Your task to perform on an android device: open app "Gmail" (install if not already installed), go to login, and select forgot password Image 0: 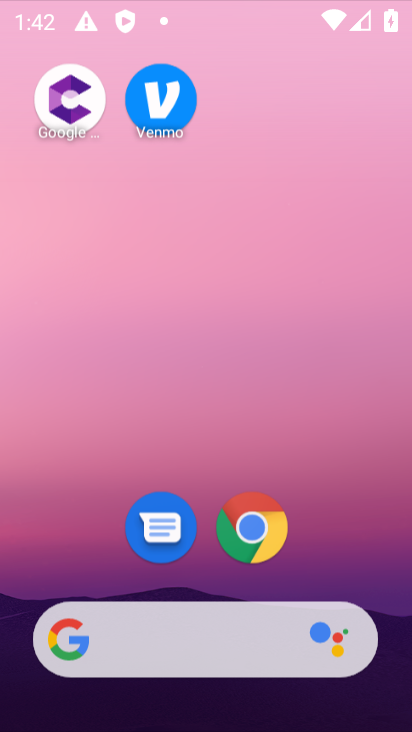
Step 0: drag from (409, 64) to (15, 52)
Your task to perform on an android device: open app "Gmail" (install if not already installed), go to login, and select forgot password Image 1: 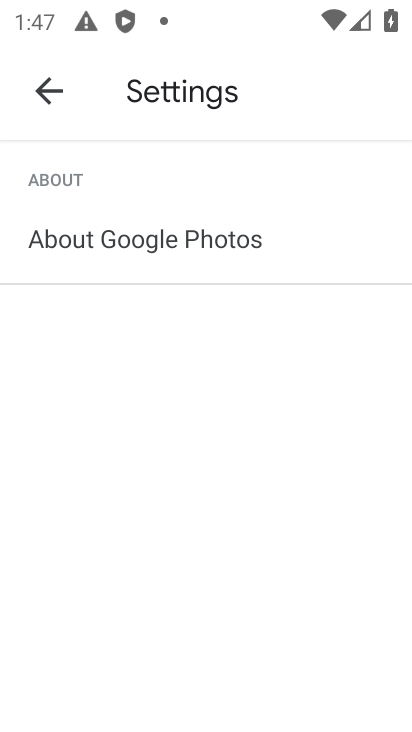
Step 1: press home button
Your task to perform on an android device: open app "Gmail" (install if not already installed), go to login, and select forgot password Image 2: 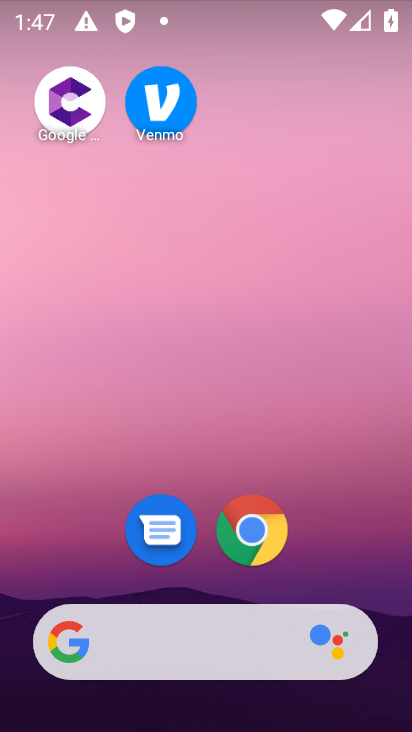
Step 2: drag from (279, 563) to (238, 0)
Your task to perform on an android device: open app "Gmail" (install if not already installed), go to login, and select forgot password Image 3: 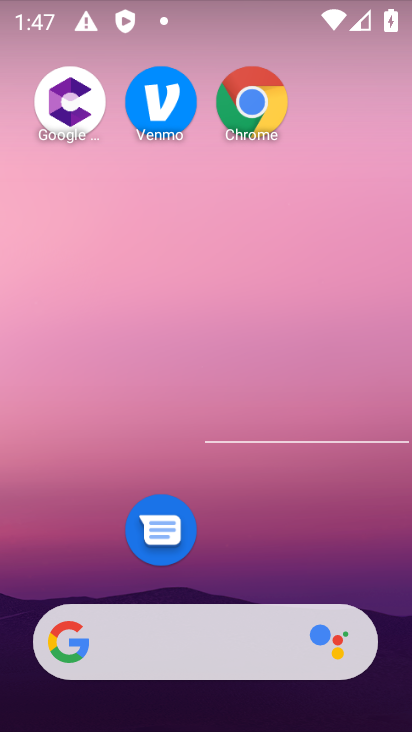
Step 3: click (377, 522)
Your task to perform on an android device: open app "Gmail" (install if not already installed), go to login, and select forgot password Image 4: 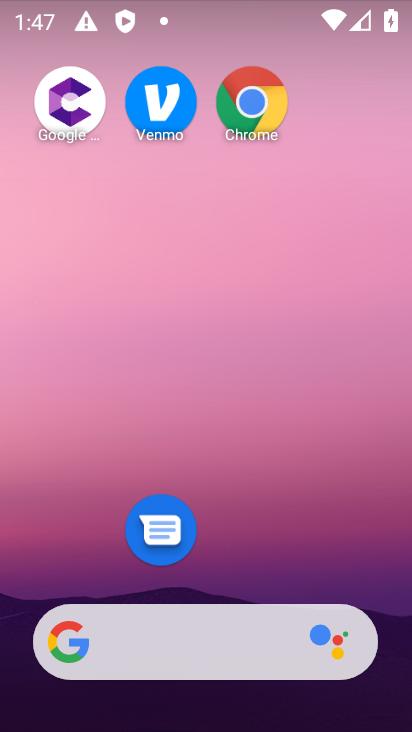
Step 4: drag from (285, 581) to (169, 13)
Your task to perform on an android device: open app "Gmail" (install if not already installed), go to login, and select forgot password Image 5: 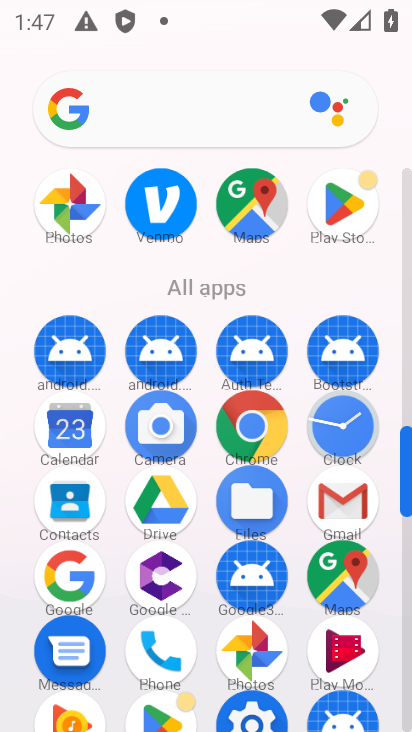
Step 5: click (367, 206)
Your task to perform on an android device: open app "Gmail" (install if not already installed), go to login, and select forgot password Image 6: 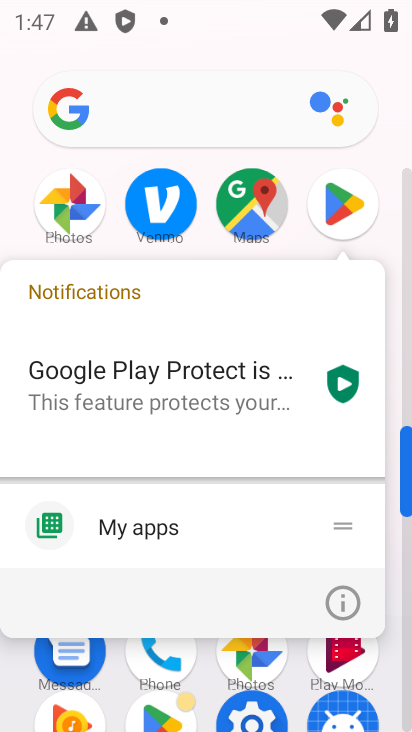
Step 6: click (345, 207)
Your task to perform on an android device: open app "Gmail" (install if not already installed), go to login, and select forgot password Image 7: 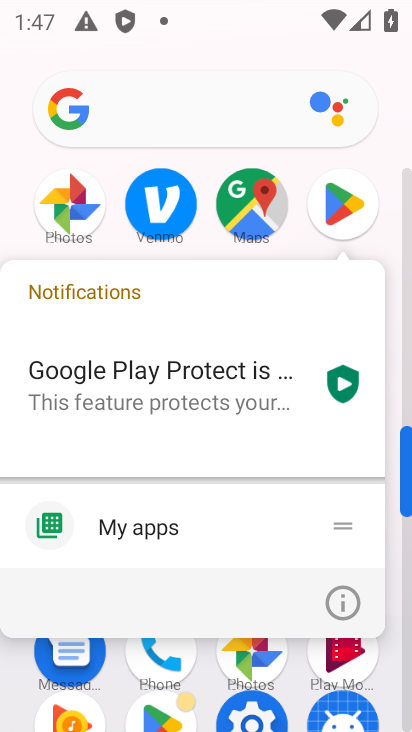
Step 7: click (345, 205)
Your task to perform on an android device: open app "Gmail" (install if not already installed), go to login, and select forgot password Image 8: 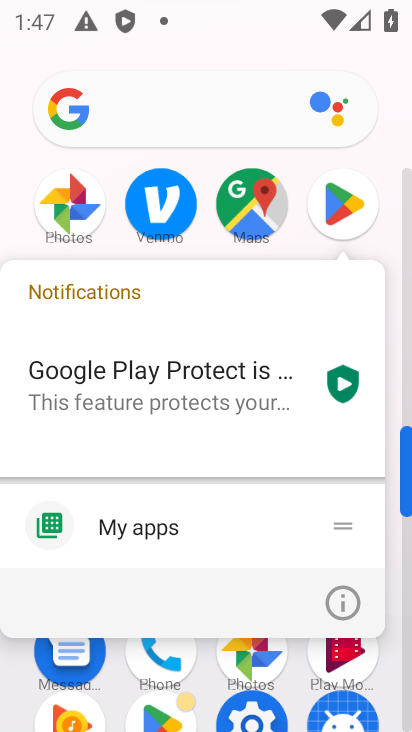
Step 8: click (350, 216)
Your task to perform on an android device: open app "Gmail" (install if not already installed), go to login, and select forgot password Image 9: 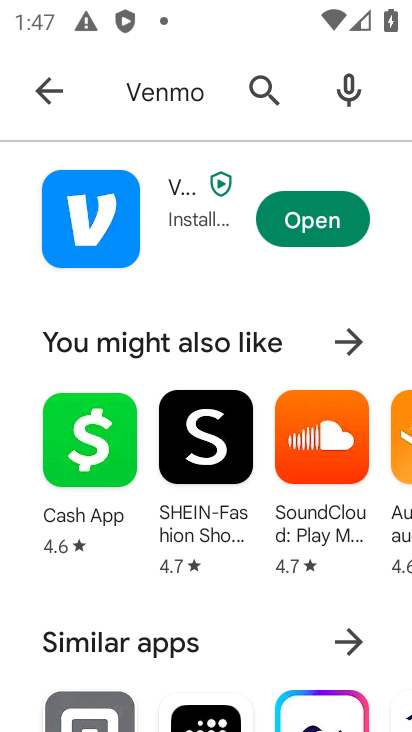
Step 9: press back button
Your task to perform on an android device: open app "Gmail" (install if not already installed), go to login, and select forgot password Image 10: 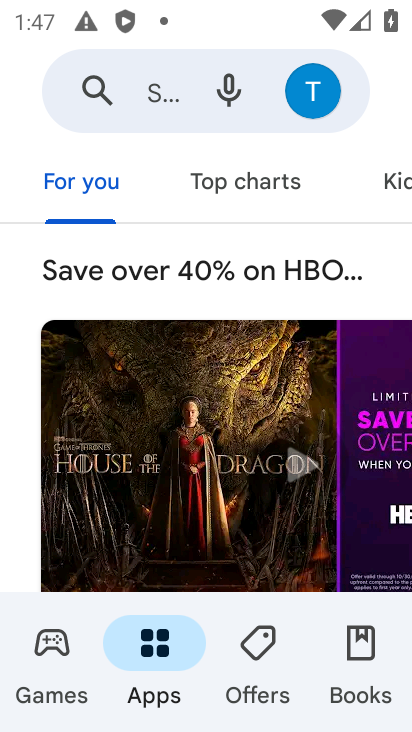
Step 10: click (152, 96)
Your task to perform on an android device: open app "Gmail" (install if not already installed), go to login, and select forgot password Image 11: 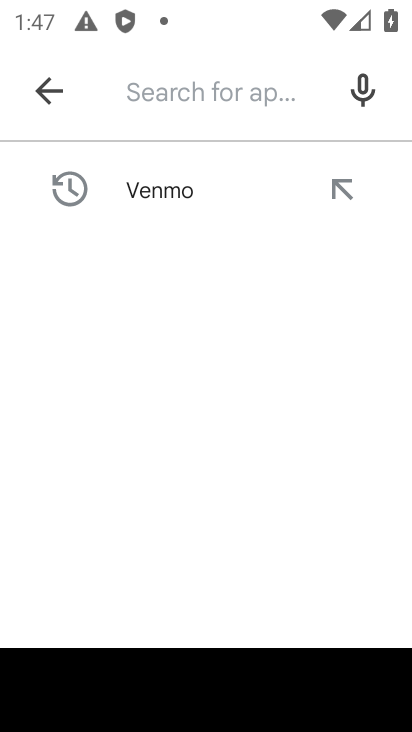
Step 11: type "Gmail"
Your task to perform on an android device: open app "Gmail" (install if not already installed), go to login, and select forgot password Image 12: 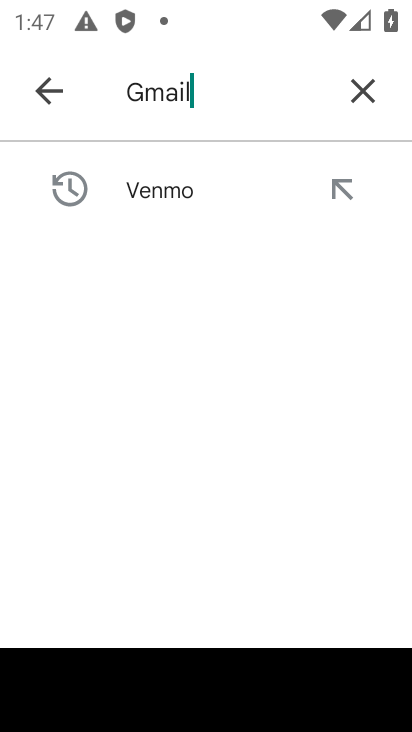
Step 12: press enter
Your task to perform on an android device: open app "Gmail" (install if not already installed), go to login, and select forgot password Image 13: 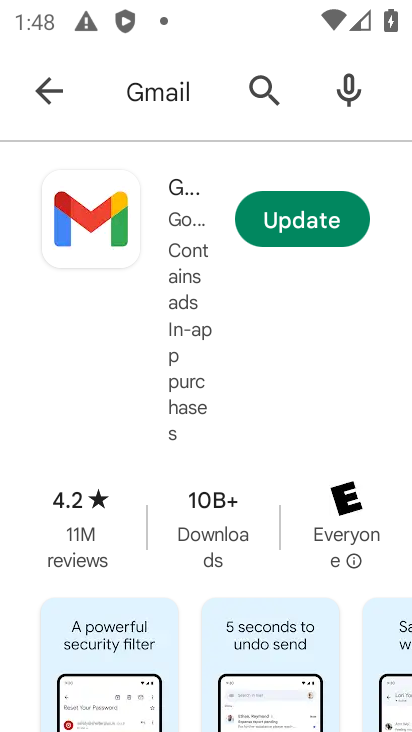
Step 13: click (303, 224)
Your task to perform on an android device: open app "Gmail" (install if not already installed), go to login, and select forgot password Image 14: 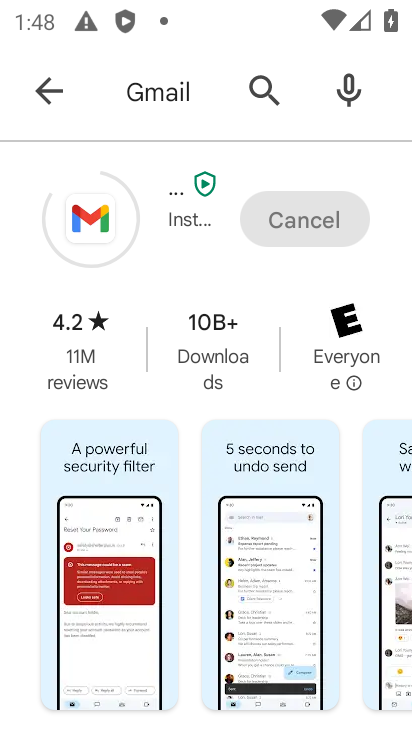
Step 14: task complete